Your task to perform on an android device: toggle airplane mode Image 0: 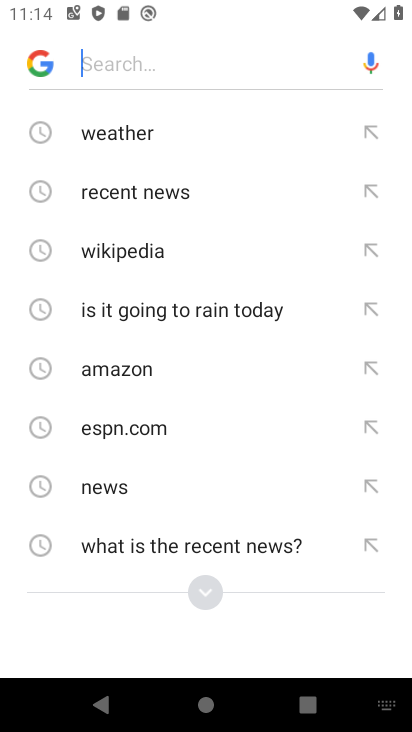
Step 0: press home button
Your task to perform on an android device: toggle airplane mode Image 1: 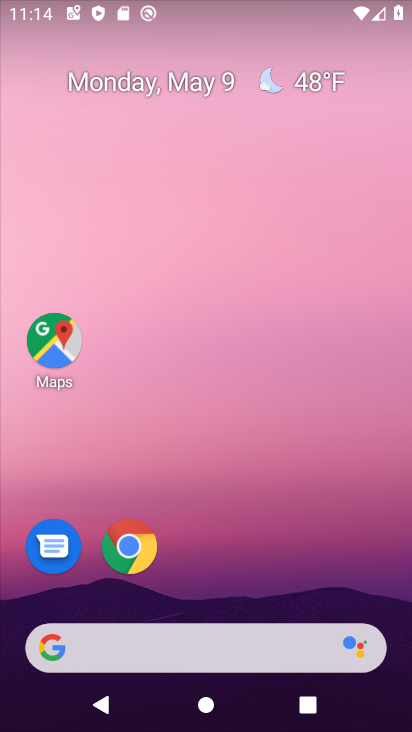
Step 1: drag from (278, 549) to (252, 0)
Your task to perform on an android device: toggle airplane mode Image 2: 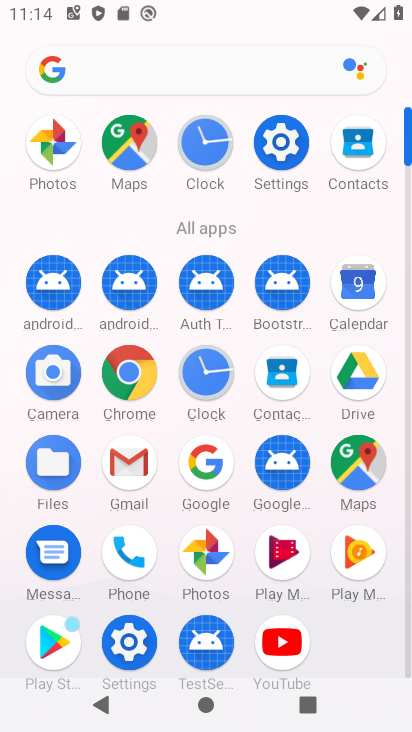
Step 2: click (275, 151)
Your task to perform on an android device: toggle airplane mode Image 3: 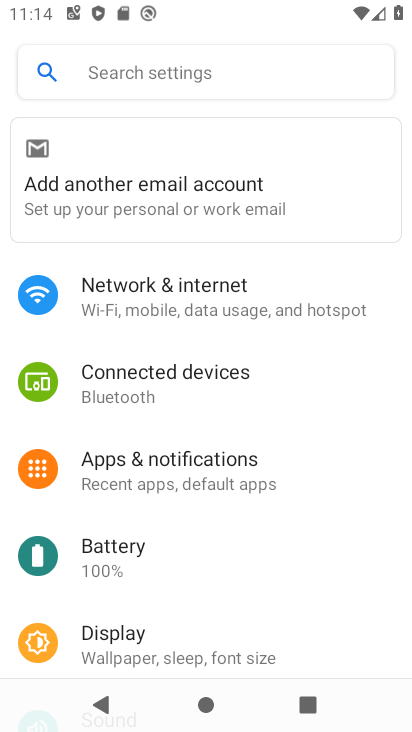
Step 3: click (117, 302)
Your task to perform on an android device: toggle airplane mode Image 4: 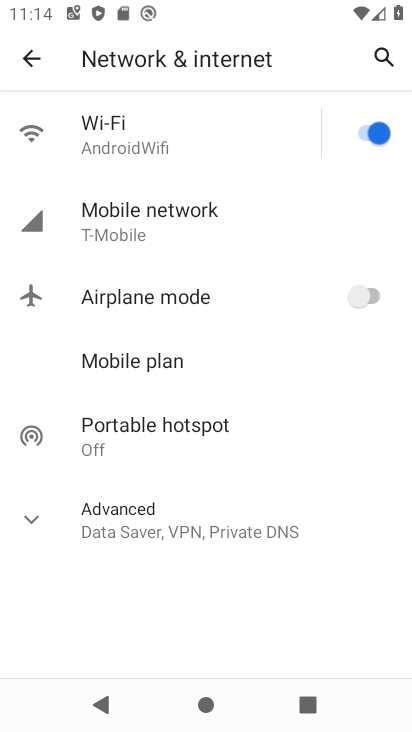
Step 4: click (366, 305)
Your task to perform on an android device: toggle airplane mode Image 5: 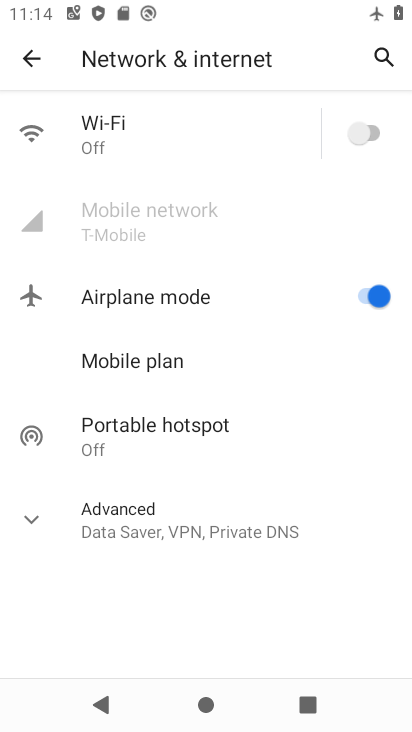
Step 5: task complete